Your task to perform on an android device: Go to accessibility settings Image 0: 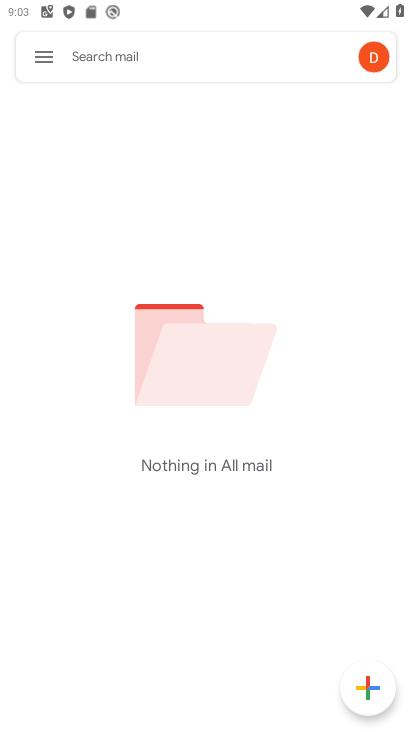
Step 0: press home button
Your task to perform on an android device: Go to accessibility settings Image 1: 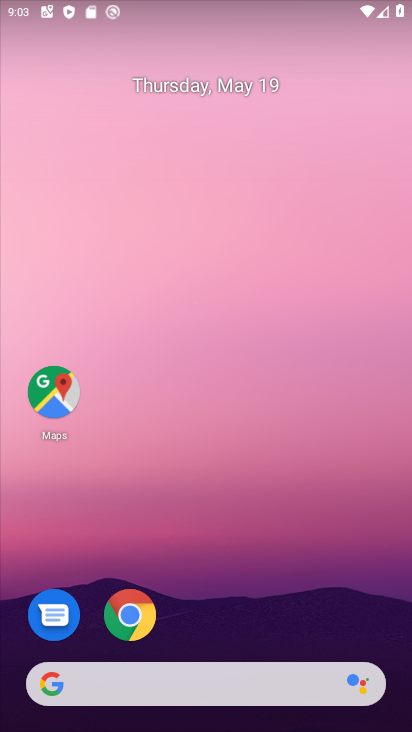
Step 1: drag from (230, 596) to (251, 33)
Your task to perform on an android device: Go to accessibility settings Image 2: 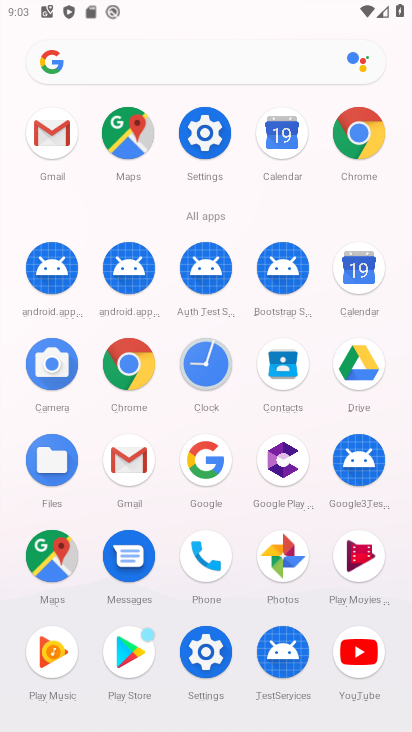
Step 2: click (198, 100)
Your task to perform on an android device: Go to accessibility settings Image 3: 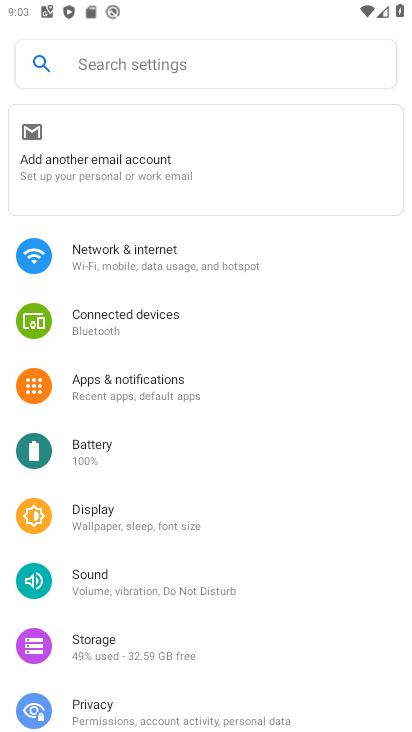
Step 3: drag from (150, 609) to (179, 102)
Your task to perform on an android device: Go to accessibility settings Image 4: 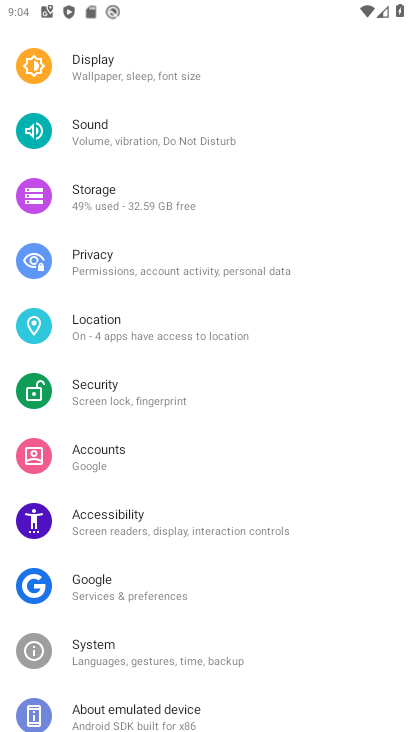
Step 4: drag from (104, 661) to (129, 355)
Your task to perform on an android device: Go to accessibility settings Image 5: 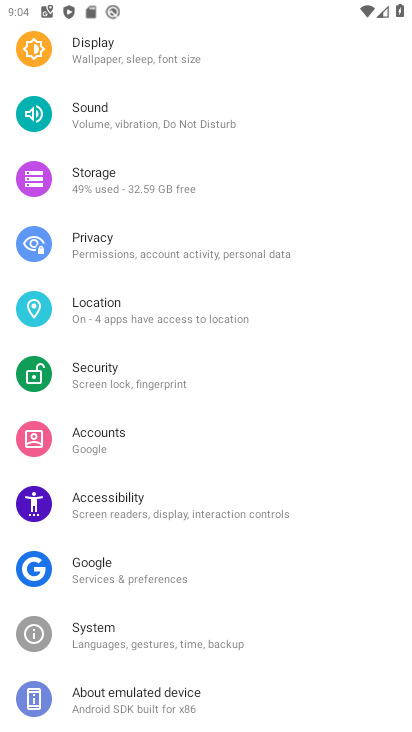
Step 5: click (124, 686)
Your task to perform on an android device: Go to accessibility settings Image 6: 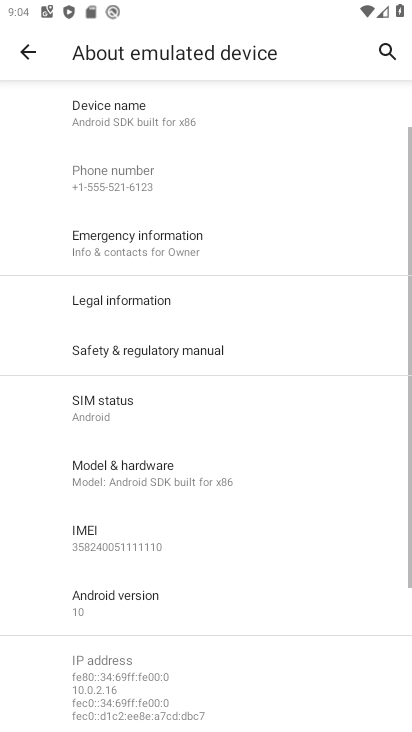
Step 6: drag from (174, 530) to (200, 365)
Your task to perform on an android device: Go to accessibility settings Image 7: 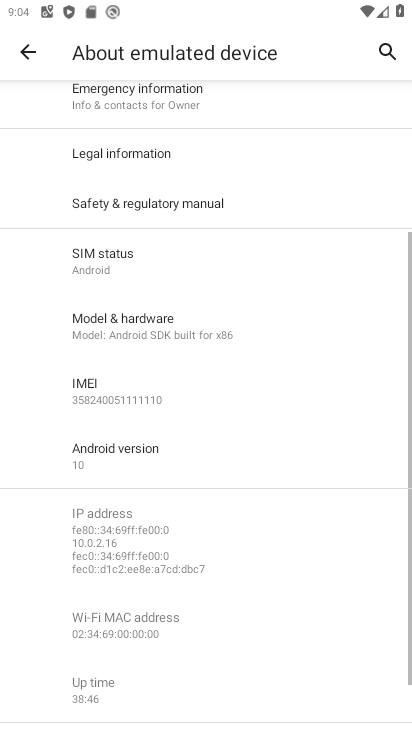
Step 7: click (28, 50)
Your task to perform on an android device: Go to accessibility settings Image 8: 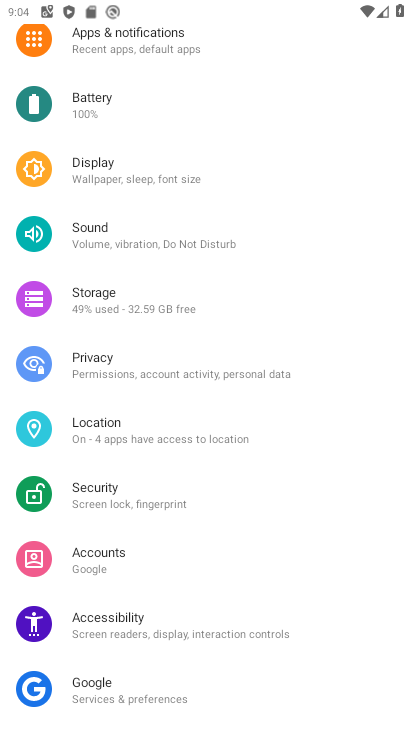
Step 8: click (123, 625)
Your task to perform on an android device: Go to accessibility settings Image 9: 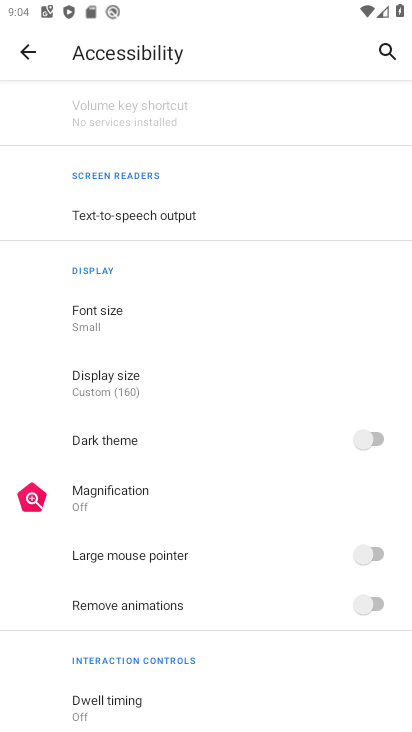
Step 9: task complete